Your task to perform on an android device: Open accessibility settings Image 0: 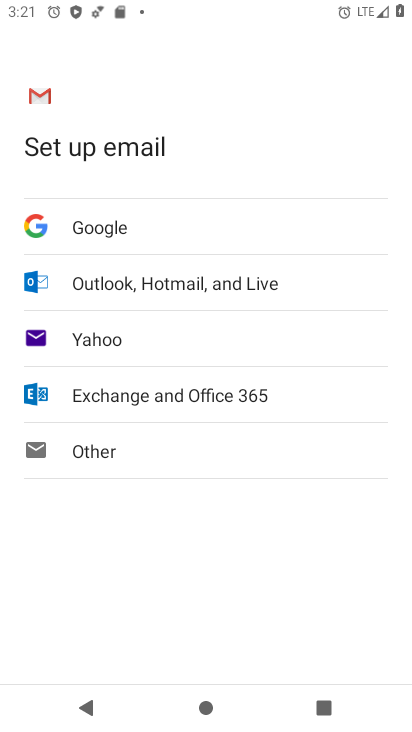
Step 0: press back button
Your task to perform on an android device: Open accessibility settings Image 1: 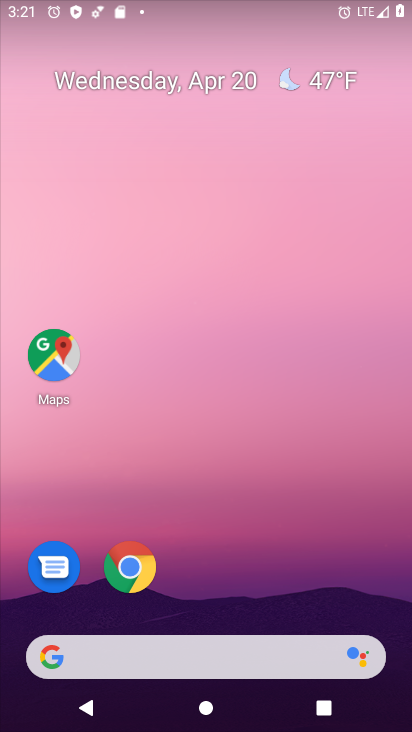
Step 1: drag from (301, 544) to (262, 51)
Your task to perform on an android device: Open accessibility settings Image 2: 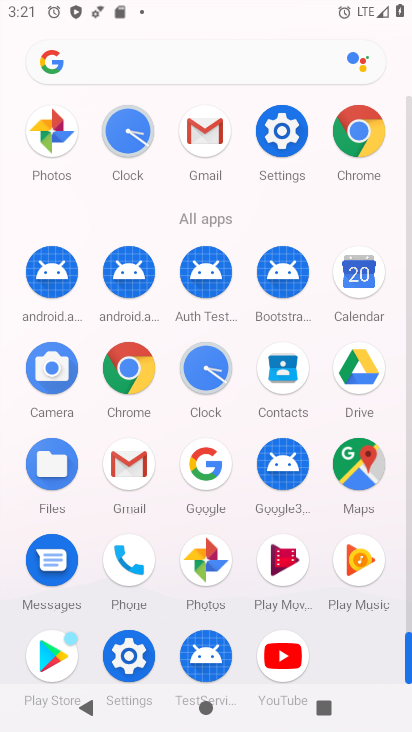
Step 2: click (124, 654)
Your task to perform on an android device: Open accessibility settings Image 3: 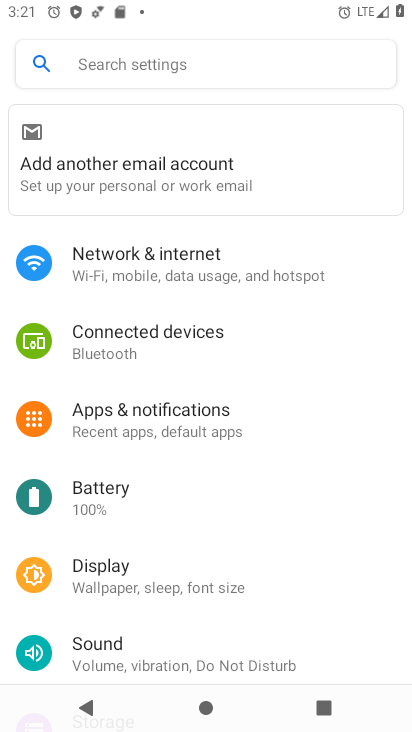
Step 3: drag from (331, 545) to (297, 117)
Your task to perform on an android device: Open accessibility settings Image 4: 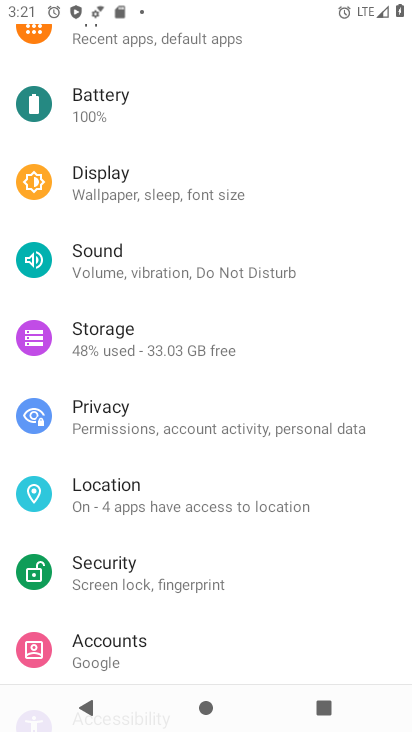
Step 4: drag from (280, 494) to (286, 139)
Your task to perform on an android device: Open accessibility settings Image 5: 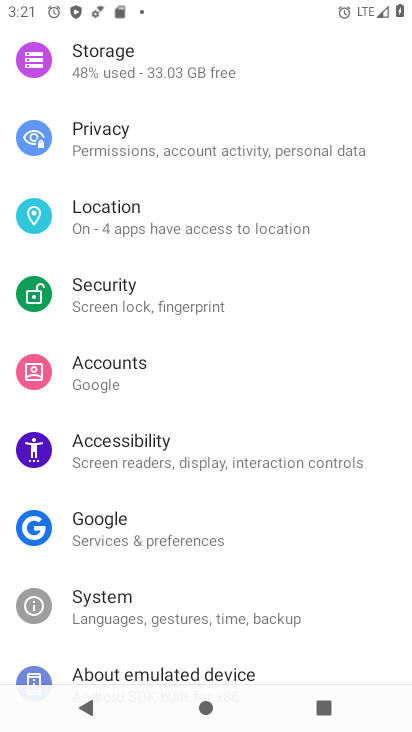
Step 5: drag from (264, 465) to (258, 150)
Your task to perform on an android device: Open accessibility settings Image 6: 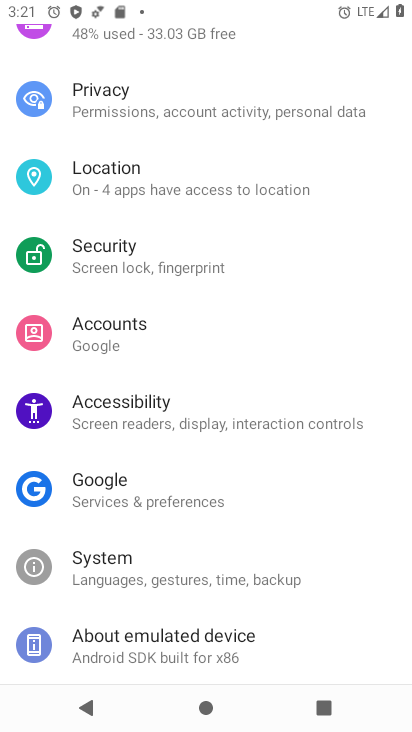
Step 6: click (139, 417)
Your task to perform on an android device: Open accessibility settings Image 7: 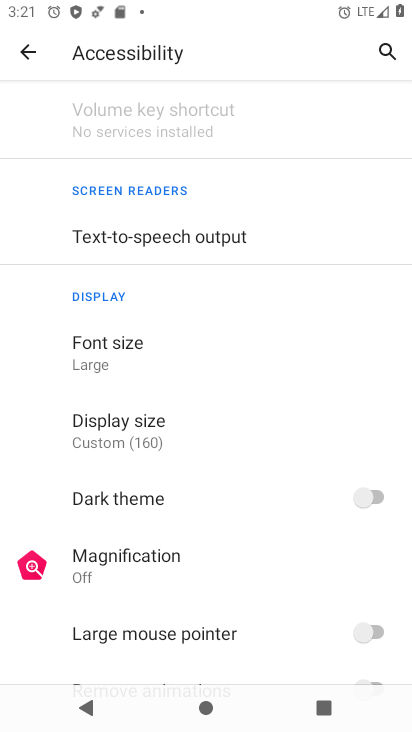
Step 7: task complete